Your task to perform on an android device: Go to Amazon Image 0: 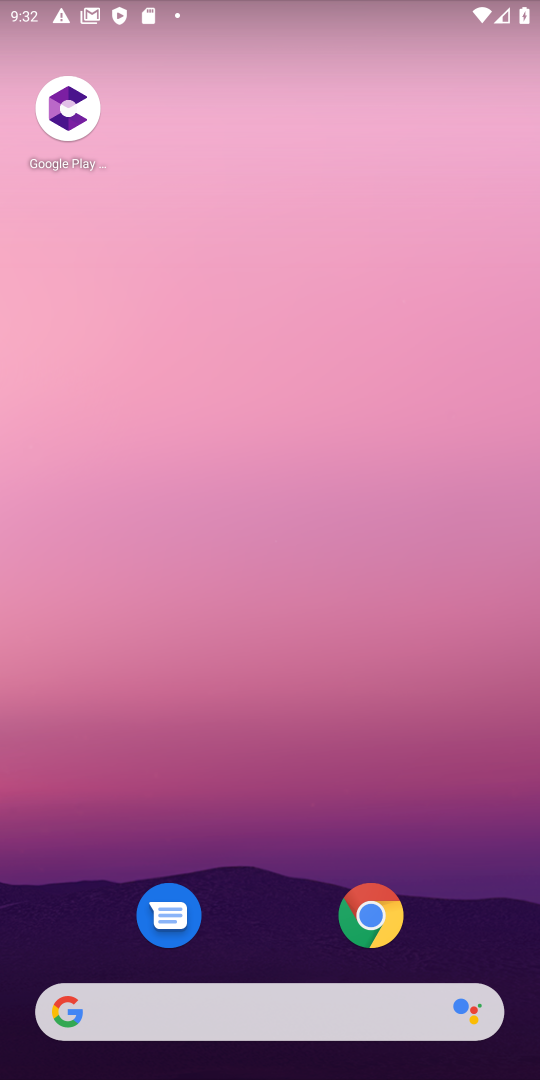
Step 0: click (74, 1020)
Your task to perform on an android device: Go to Amazon Image 1: 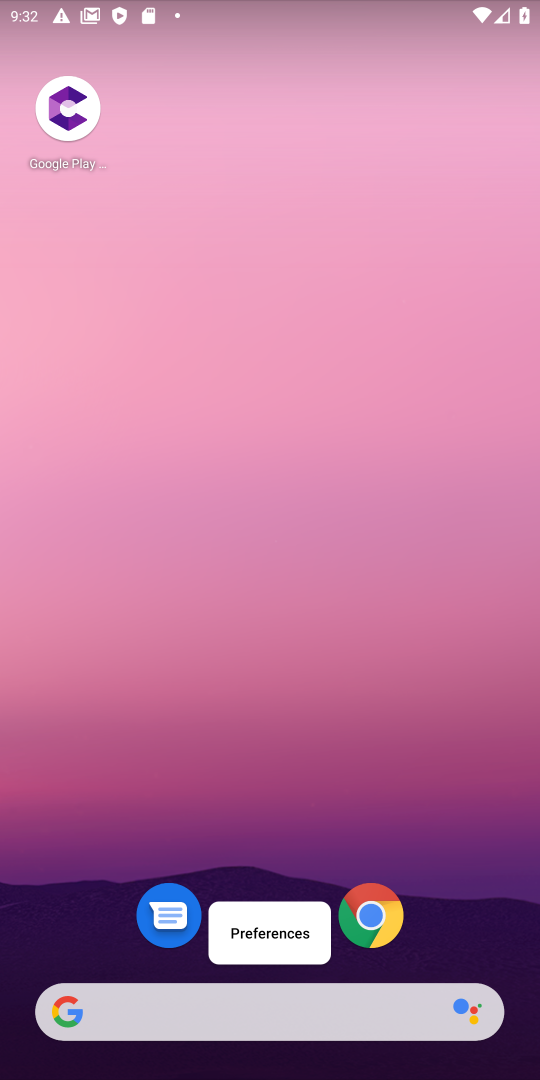
Step 1: click (63, 1016)
Your task to perform on an android device: Go to Amazon Image 2: 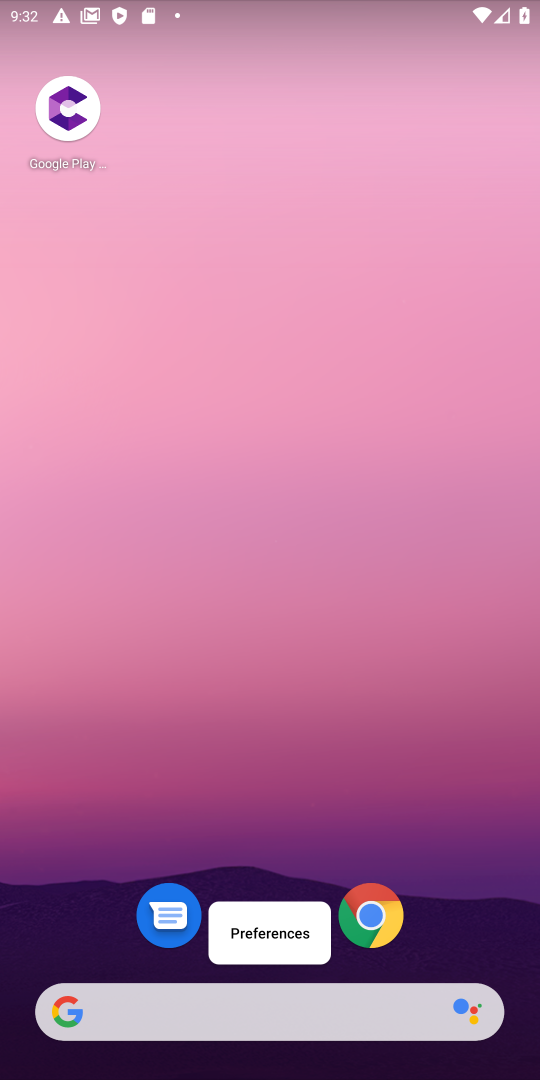
Step 2: click (55, 1015)
Your task to perform on an android device: Go to Amazon Image 3: 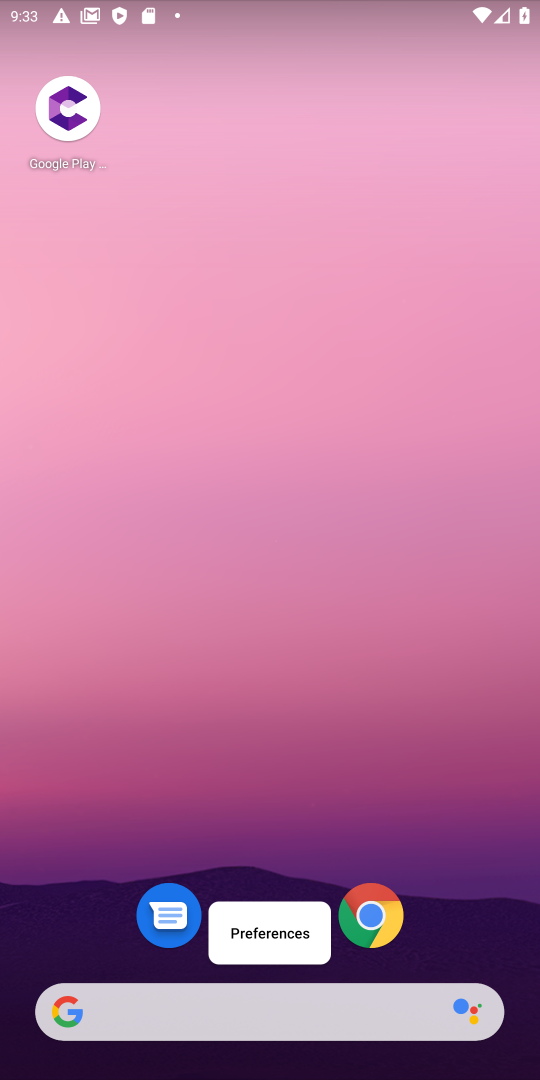
Step 3: click (75, 1014)
Your task to perform on an android device: Go to Amazon Image 4: 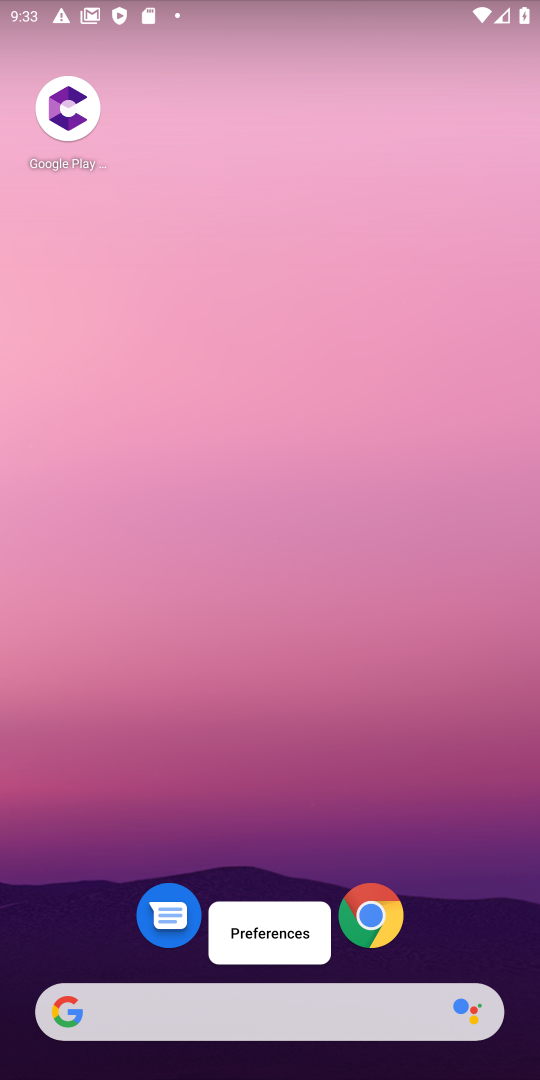
Step 4: click (73, 1014)
Your task to perform on an android device: Go to Amazon Image 5: 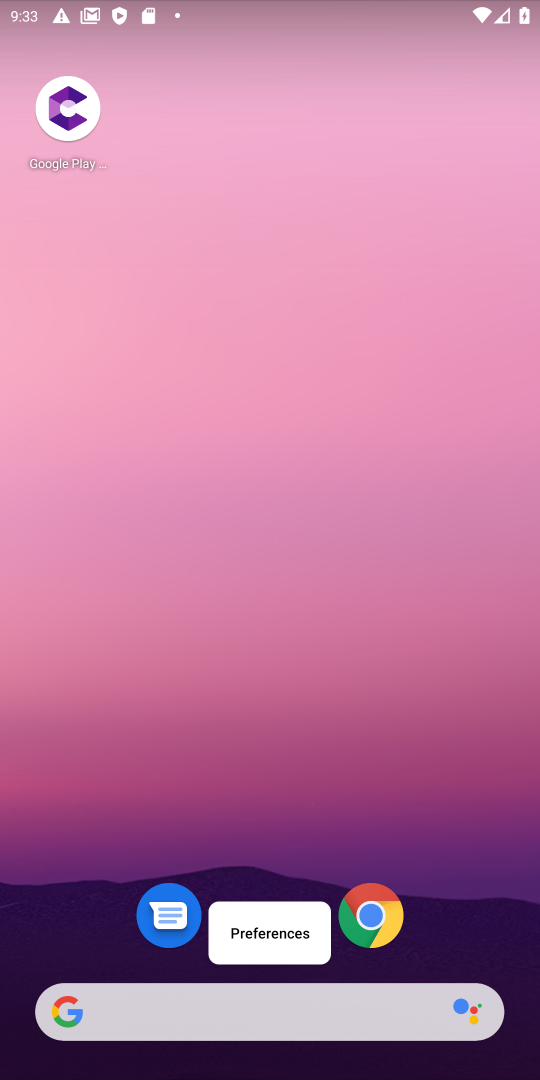
Step 5: click (61, 1012)
Your task to perform on an android device: Go to Amazon Image 6: 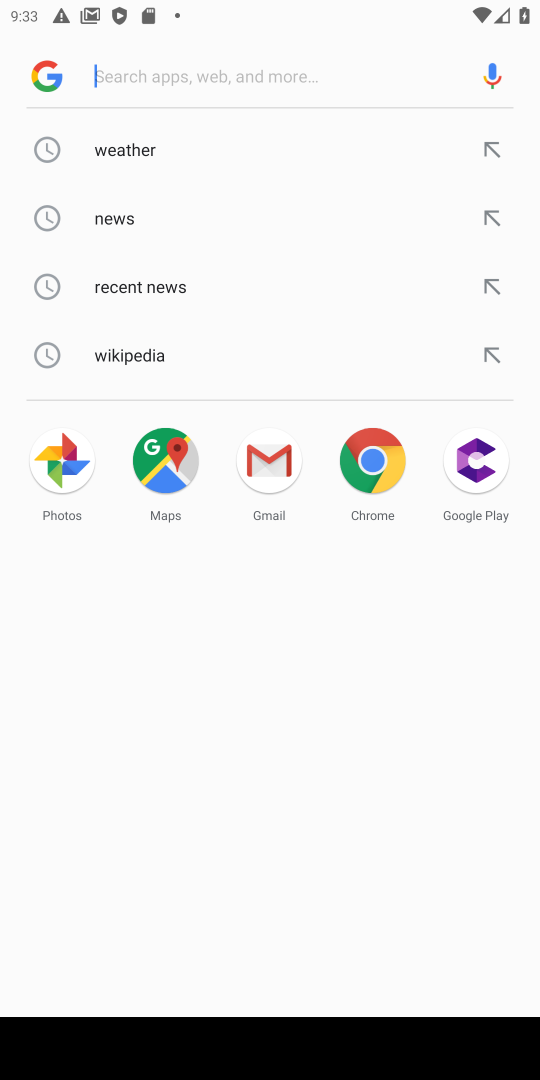
Step 6: type " Amazon"
Your task to perform on an android device: Go to Amazon Image 7: 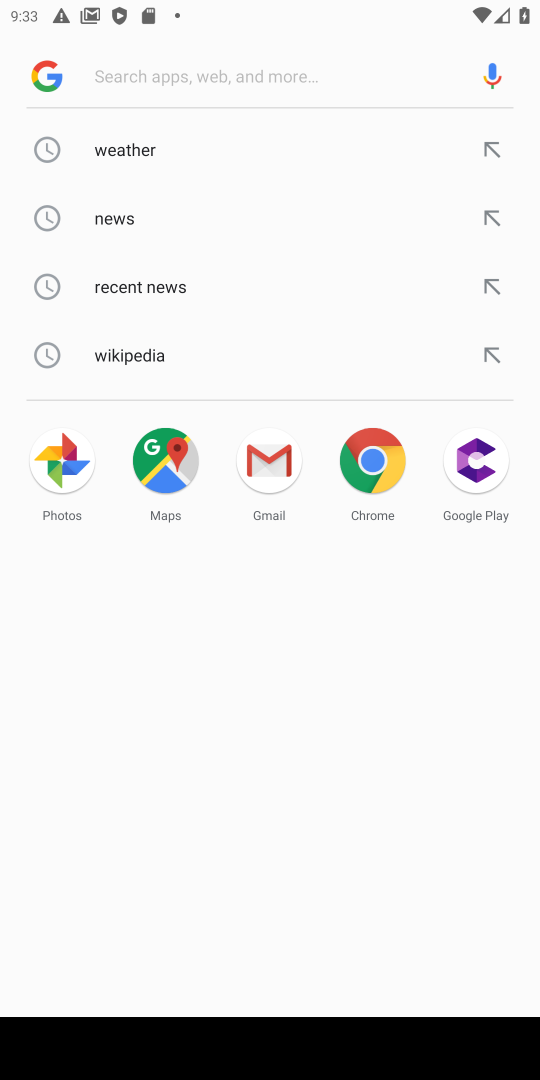
Step 7: click (230, 82)
Your task to perform on an android device: Go to Amazon Image 8: 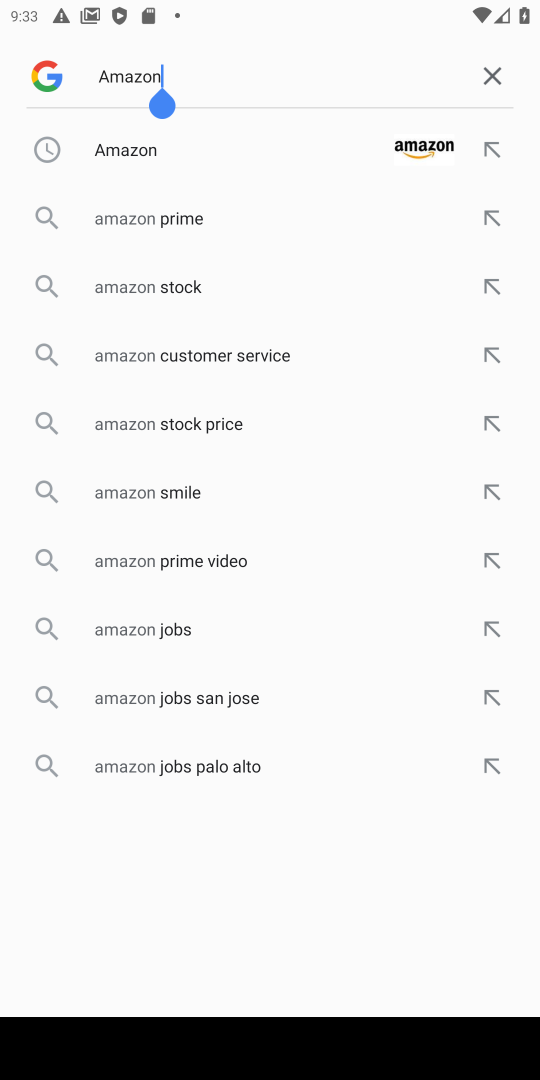
Step 8: click (444, 151)
Your task to perform on an android device: Go to Amazon Image 9: 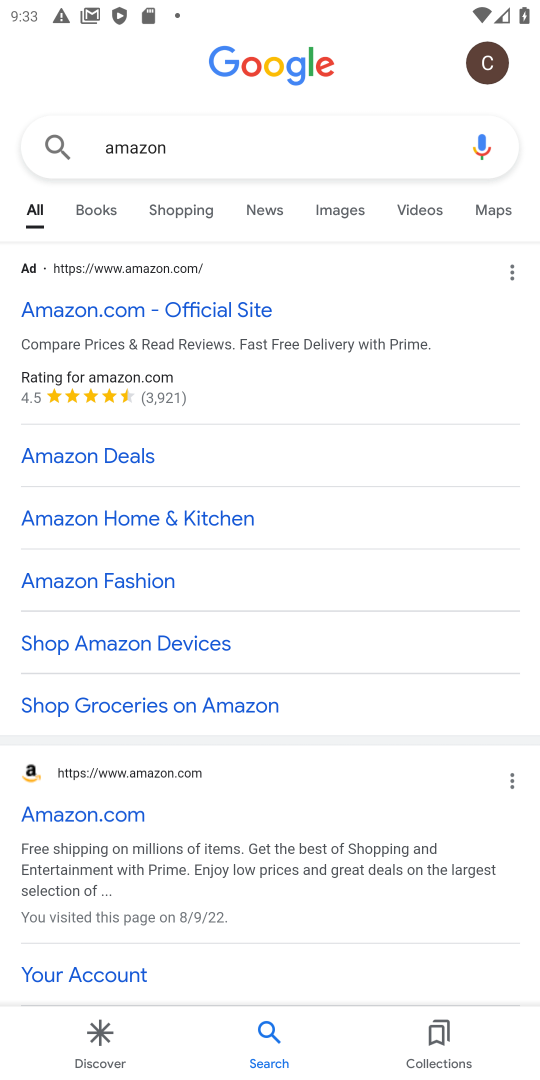
Step 9: click (102, 821)
Your task to perform on an android device: Go to Amazon Image 10: 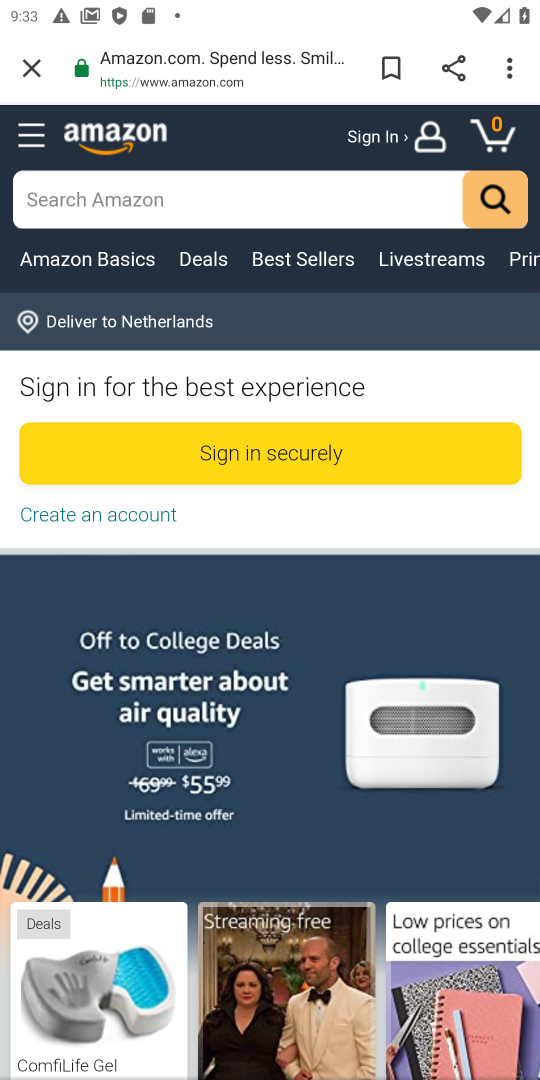
Step 10: task complete